Your task to perform on an android device: What's the weather today? Image 0: 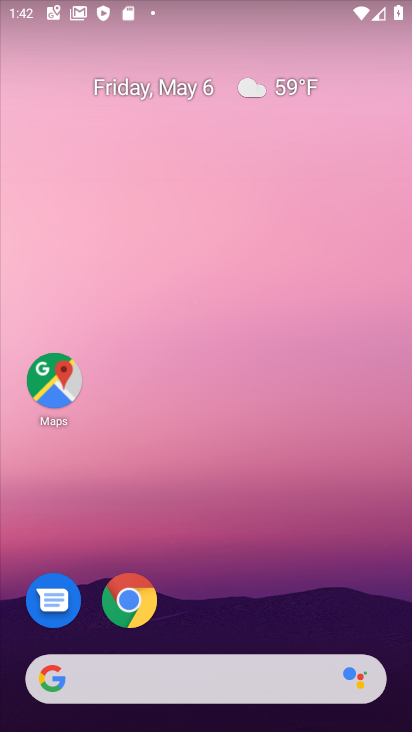
Step 0: drag from (227, 561) to (274, 97)
Your task to perform on an android device: What's the weather today? Image 1: 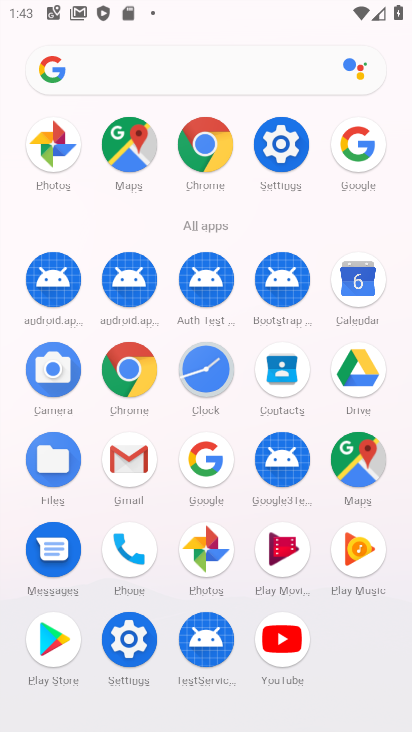
Step 1: click (205, 460)
Your task to perform on an android device: What's the weather today? Image 2: 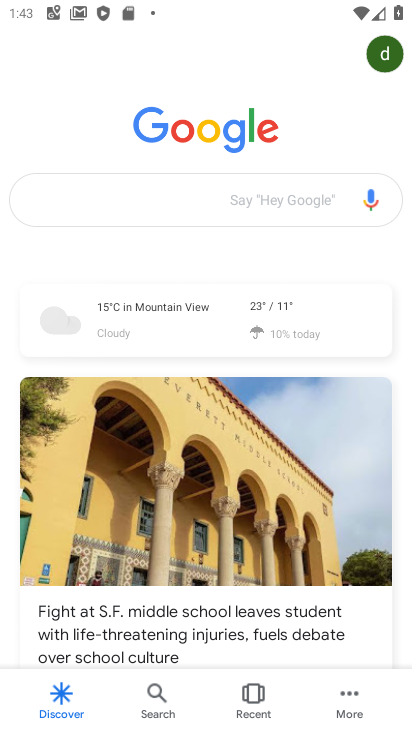
Step 2: click (150, 189)
Your task to perform on an android device: What's the weather today? Image 3: 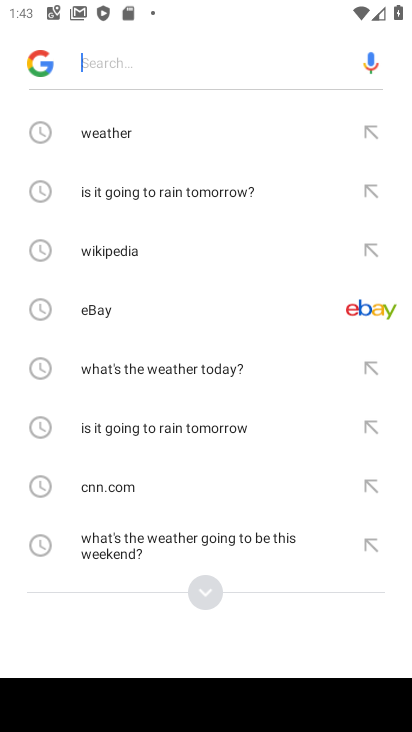
Step 3: click (130, 137)
Your task to perform on an android device: What's the weather today? Image 4: 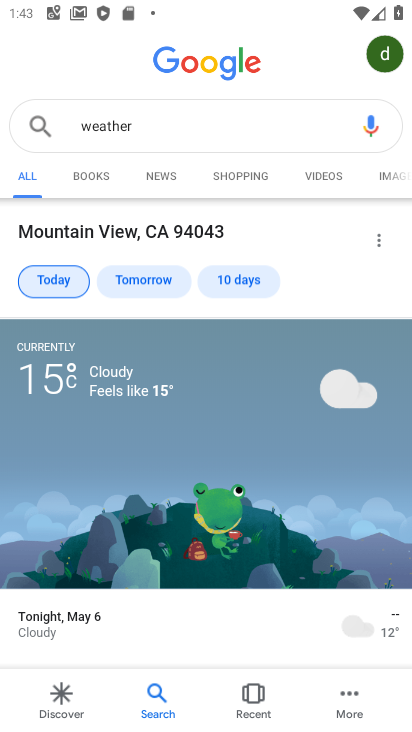
Step 4: task complete